Your task to perform on an android device: turn pop-ups on in chrome Image 0: 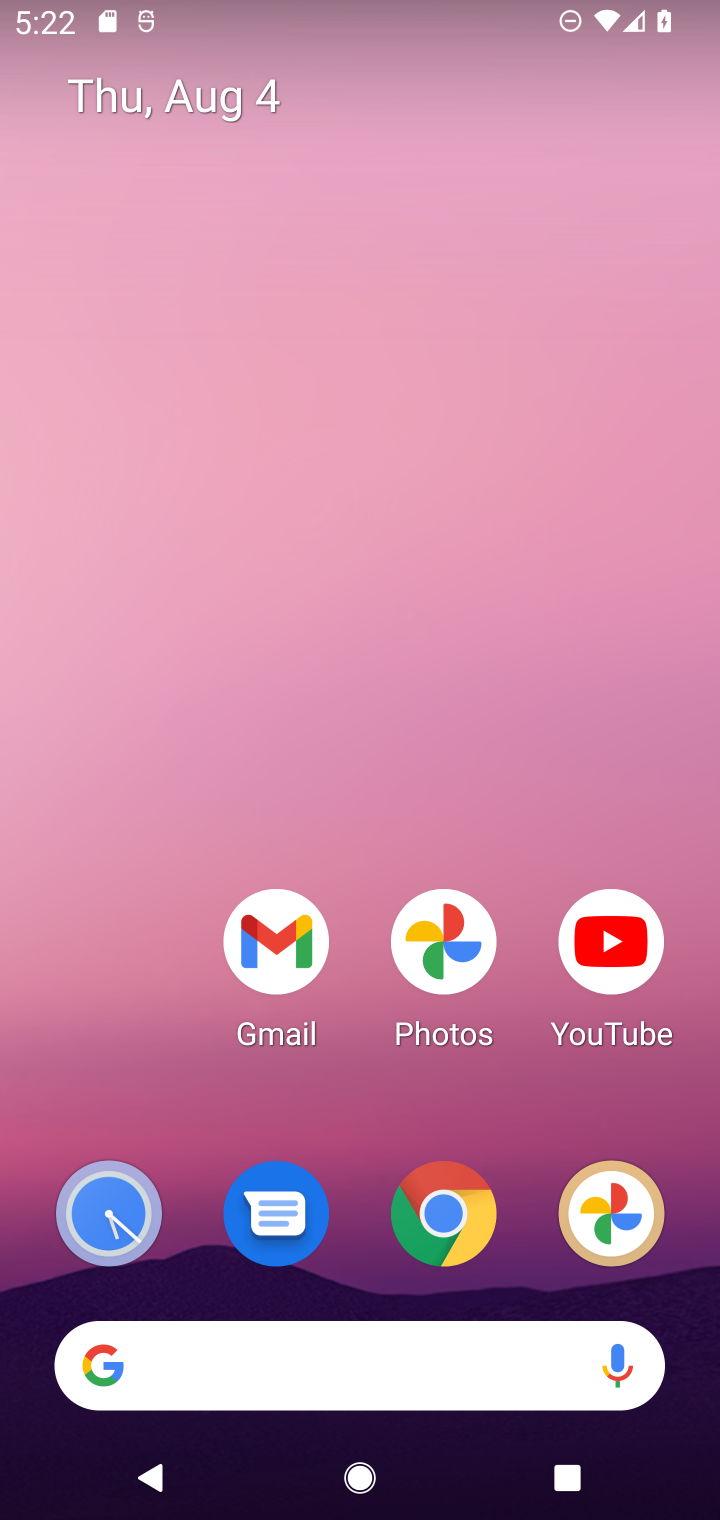
Step 0: press home button
Your task to perform on an android device: turn pop-ups on in chrome Image 1: 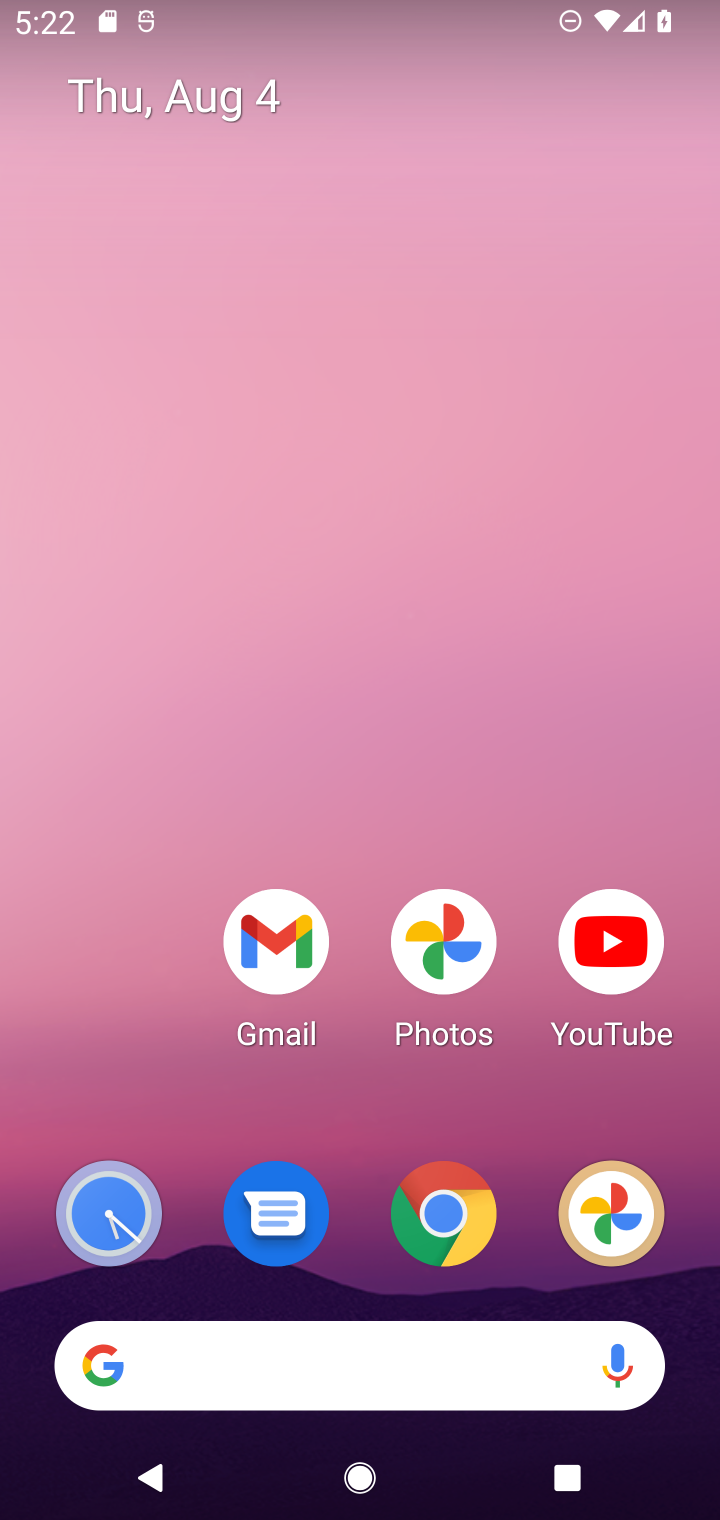
Step 1: drag from (153, 1130) to (161, 478)
Your task to perform on an android device: turn pop-ups on in chrome Image 2: 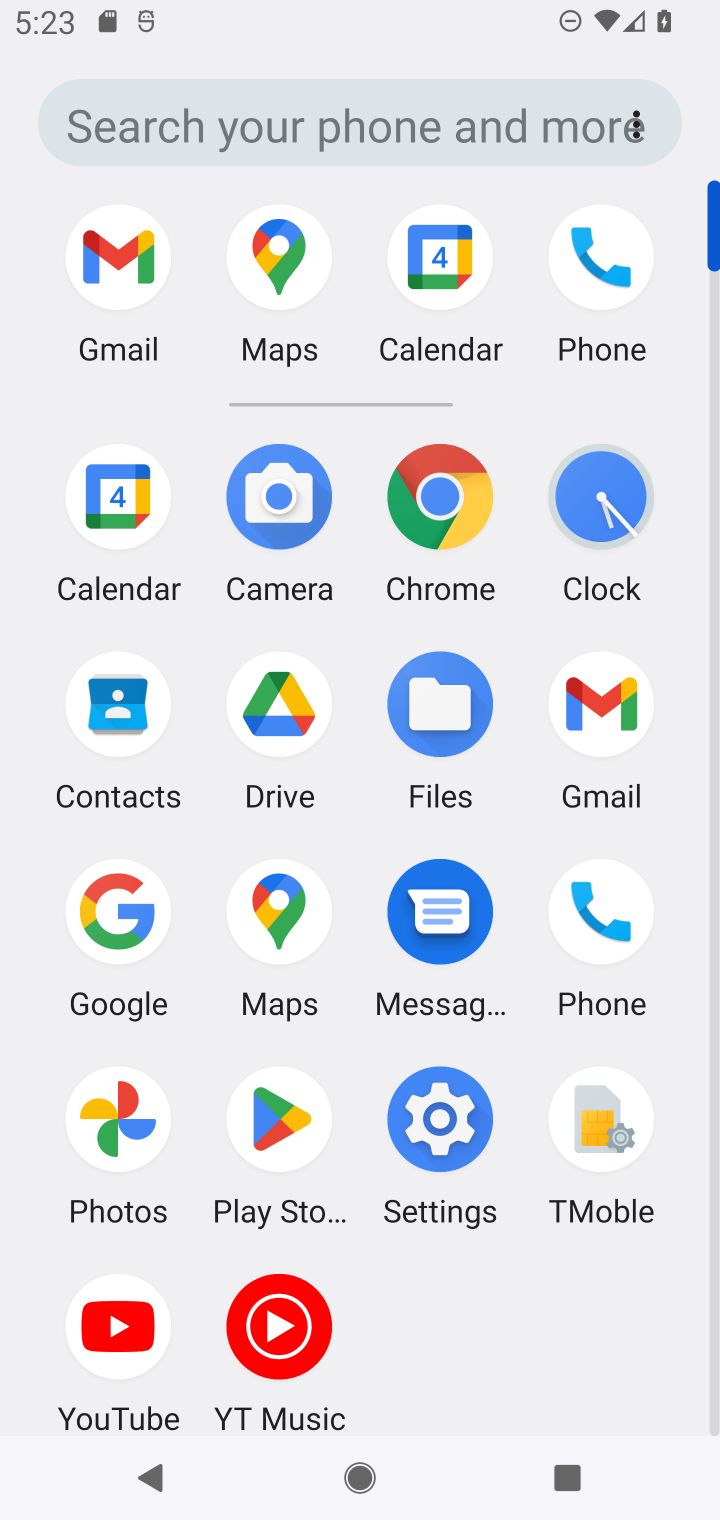
Step 2: click (446, 487)
Your task to perform on an android device: turn pop-ups on in chrome Image 3: 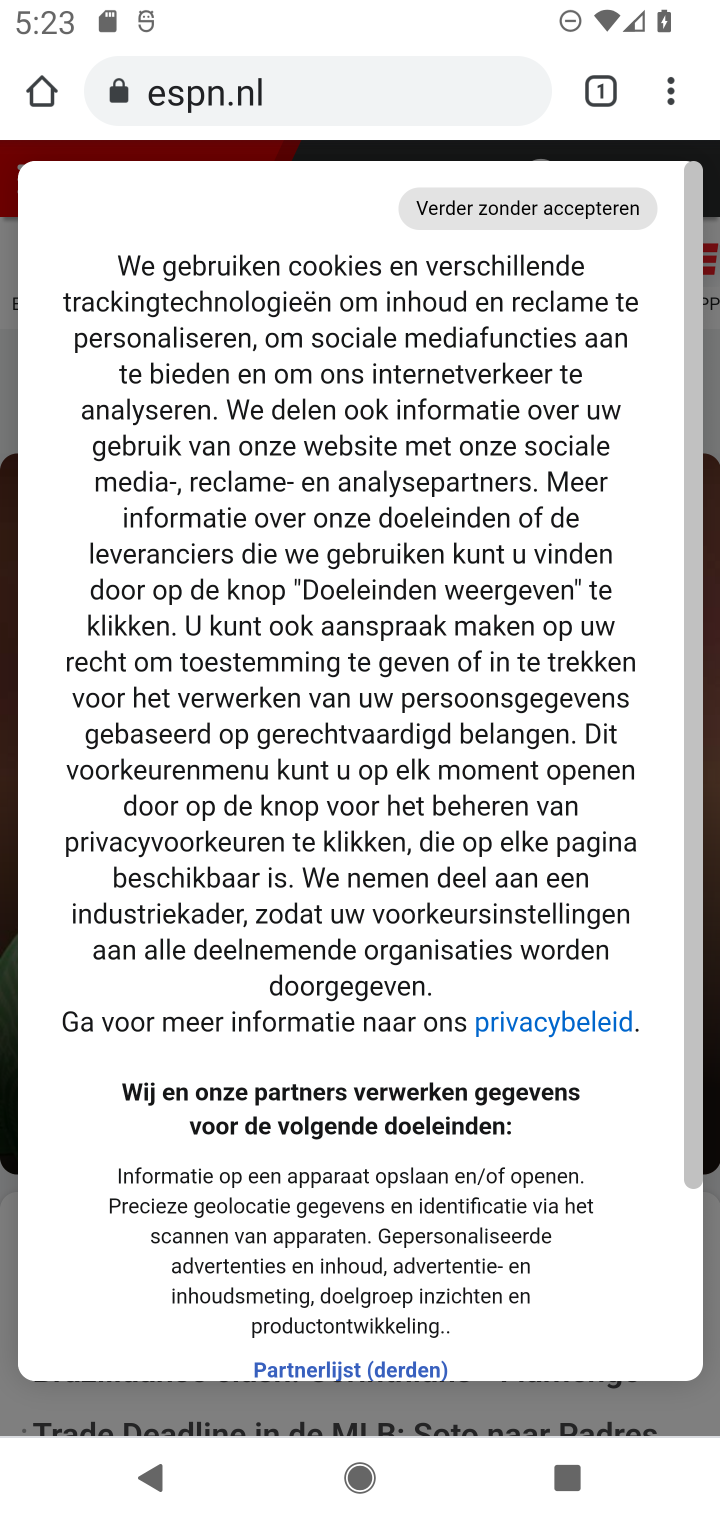
Step 3: click (666, 91)
Your task to perform on an android device: turn pop-ups on in chrome Image 4: 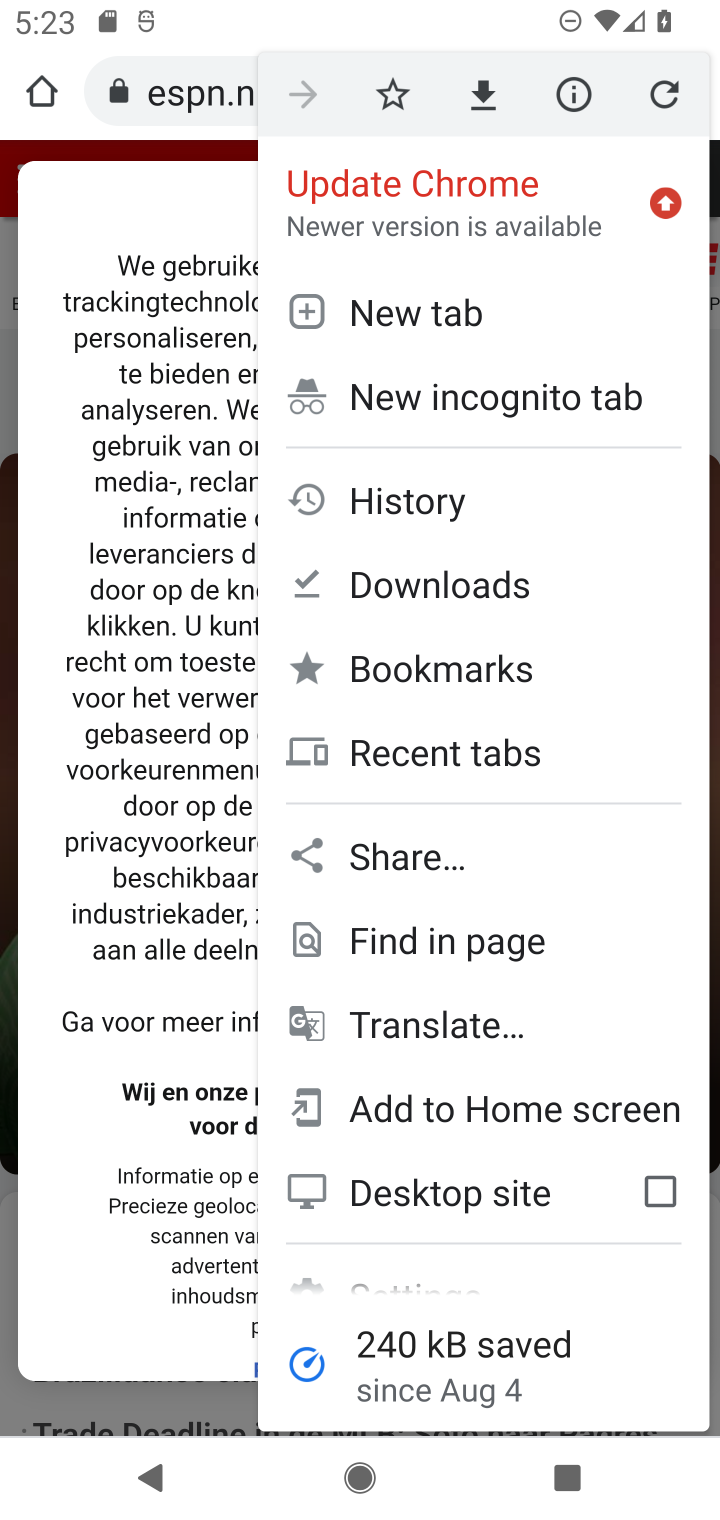
Step 4: drag from (585, 969) to (630, 667)
Your task to perform on an android device: turn pop-ups on in chrome Image 5: 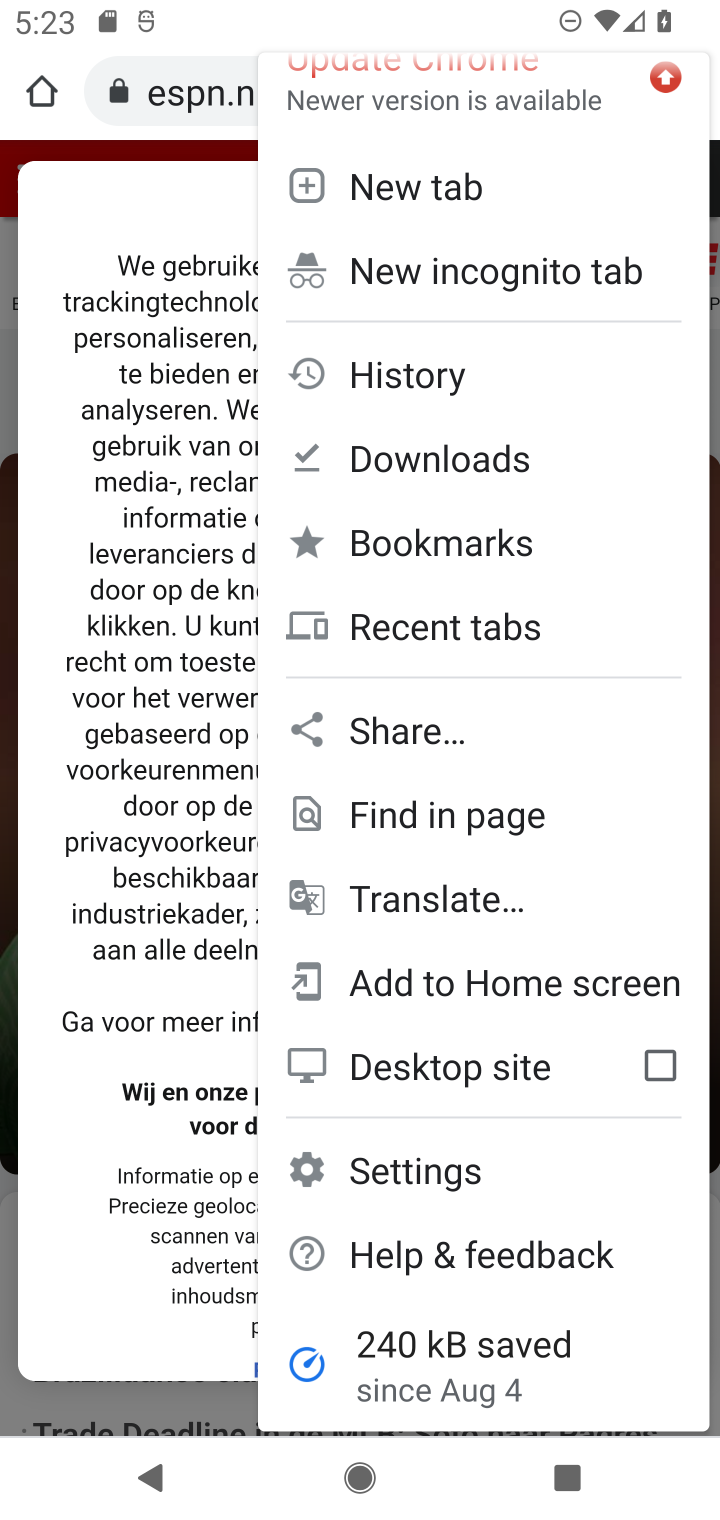
Step 5: click (453, 1169)
Your task to perform on an android device: turn pop-ups on in chrome Image 6: 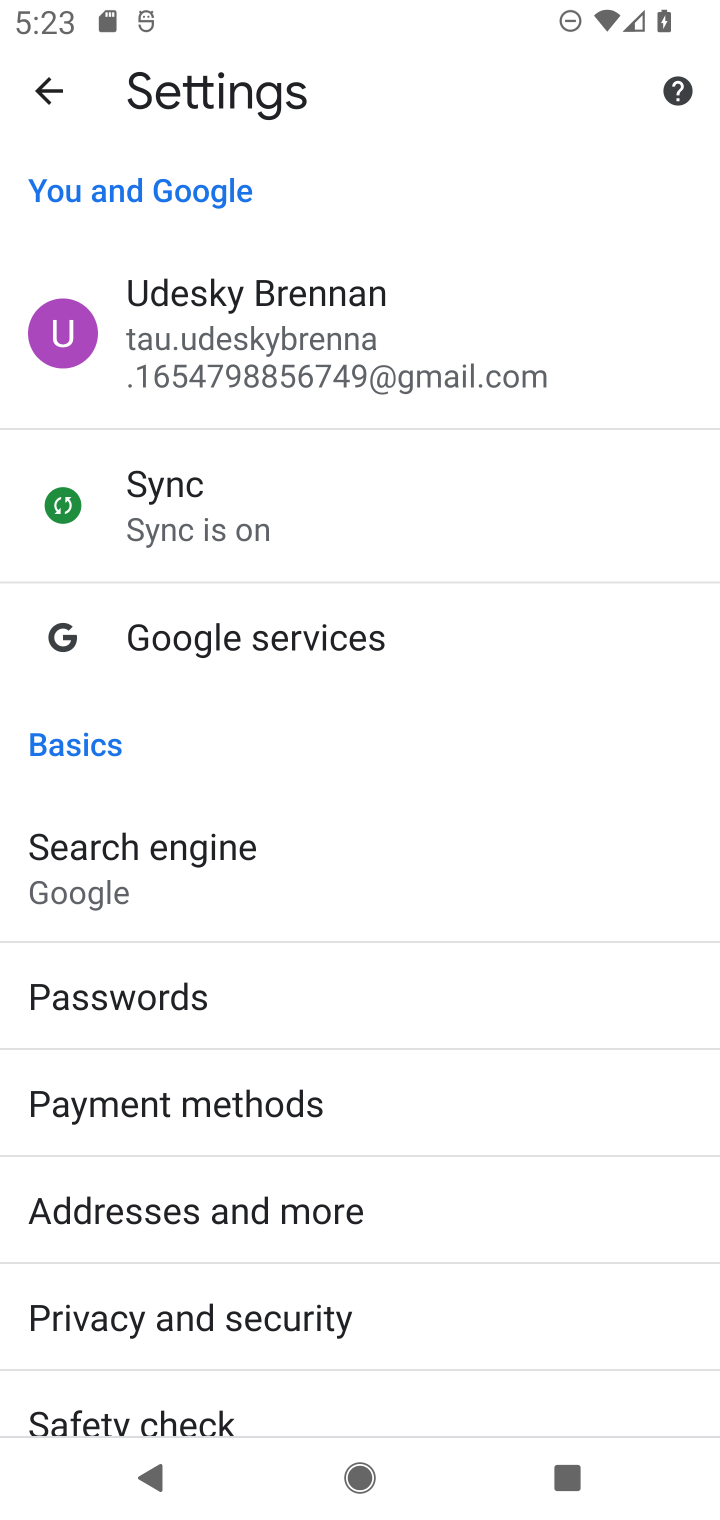
Step 6: drag from (489, 1241) to (473, 1001)
Your task to perform on an android device: turn pop-ups on in chrome Image 7: 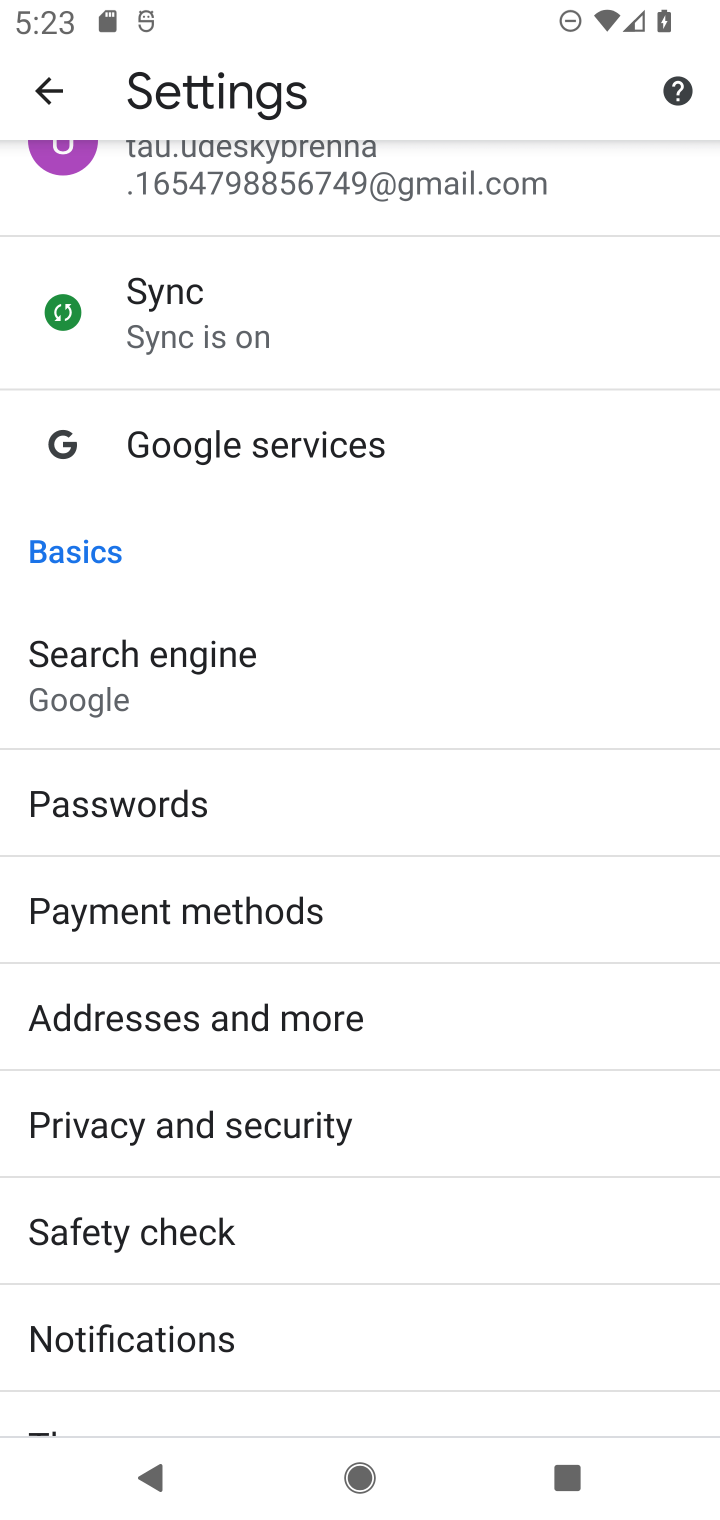
Step 7: drag from (490, 1306) to (515, 981)
Your task to perform on an android device: turn pop-ups on in chrome Image 8: 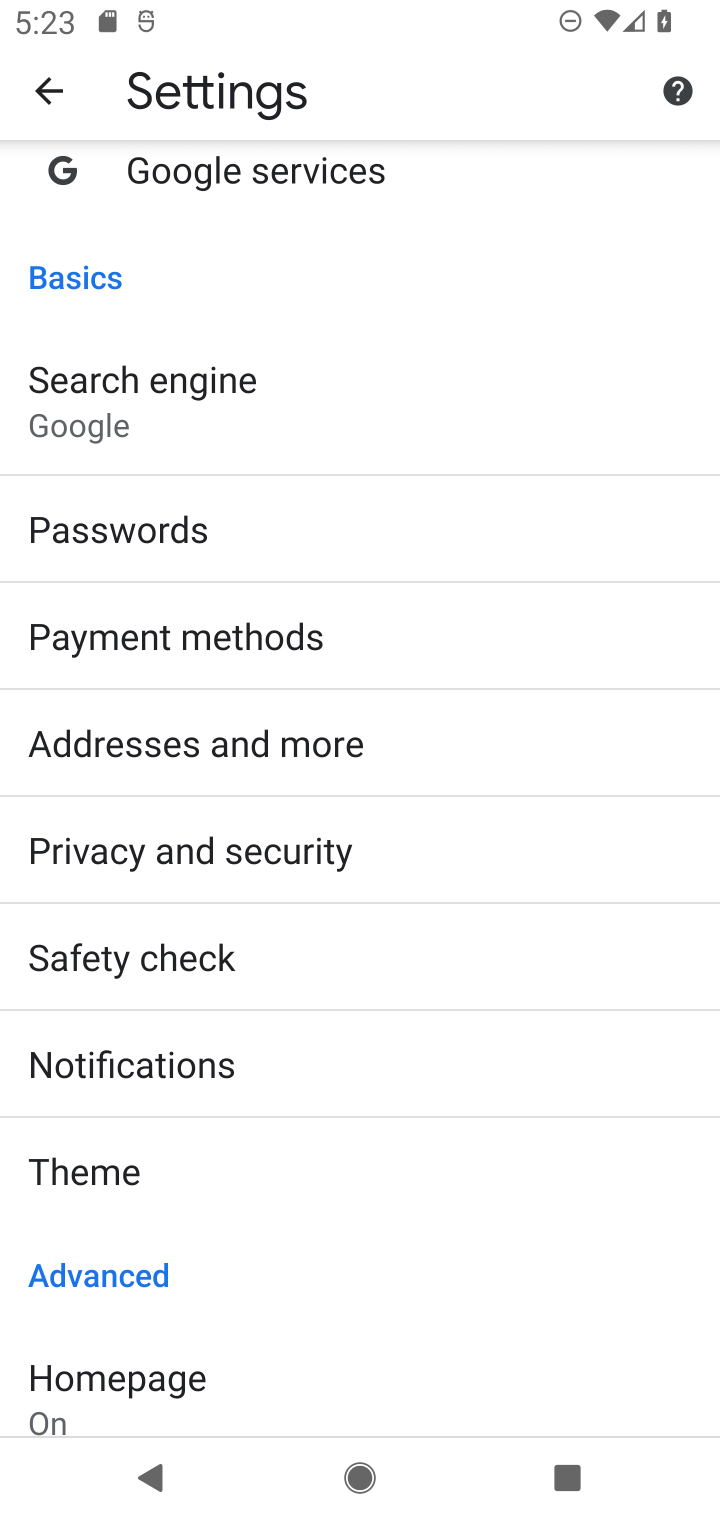
Step 8: drag from (498, 1225) to (491, 1010)
Your task to perform on an android device: turn pop-ups on in chrome Image 9: 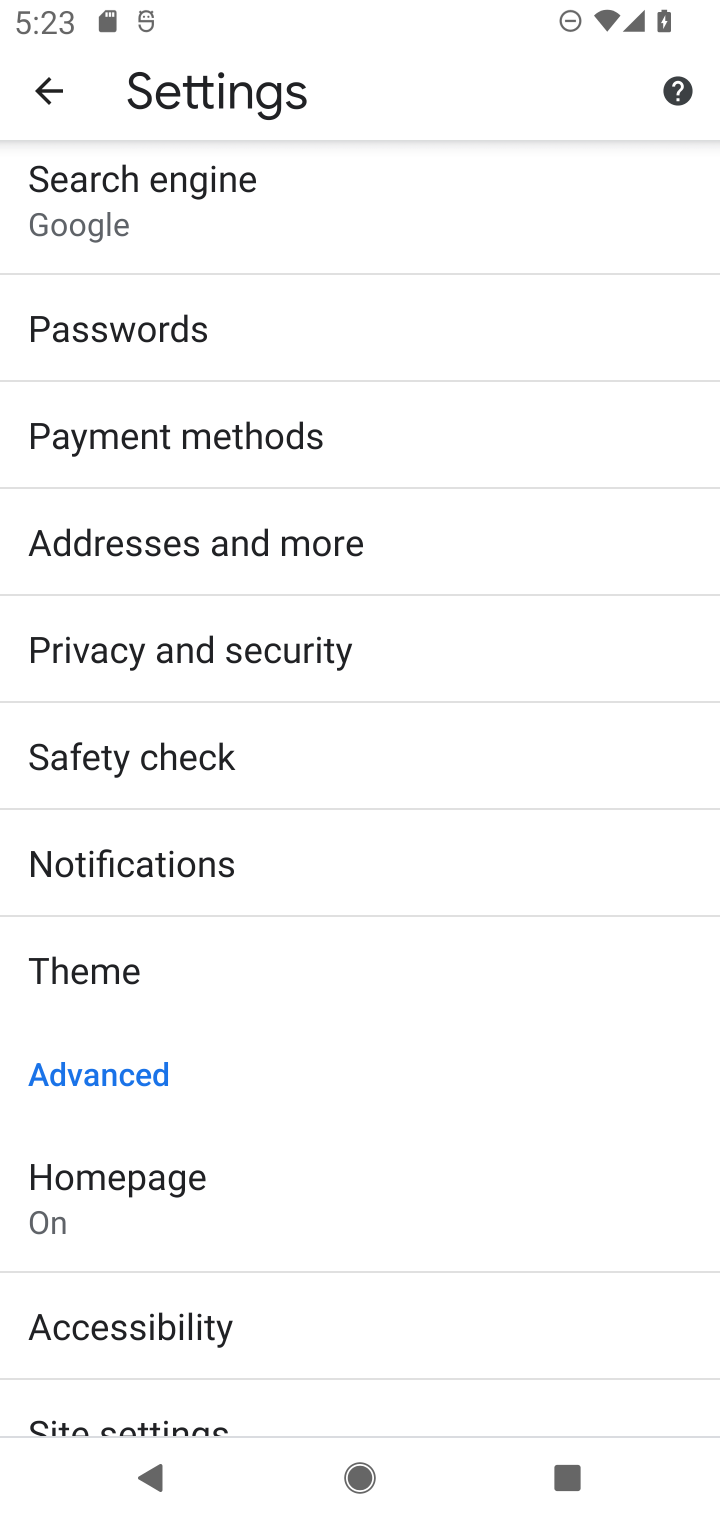
Step 9: drag from (523, 1227) to (523, 865)
Your task to perform on an android device: turn pop-ups on in chrome Image 10: 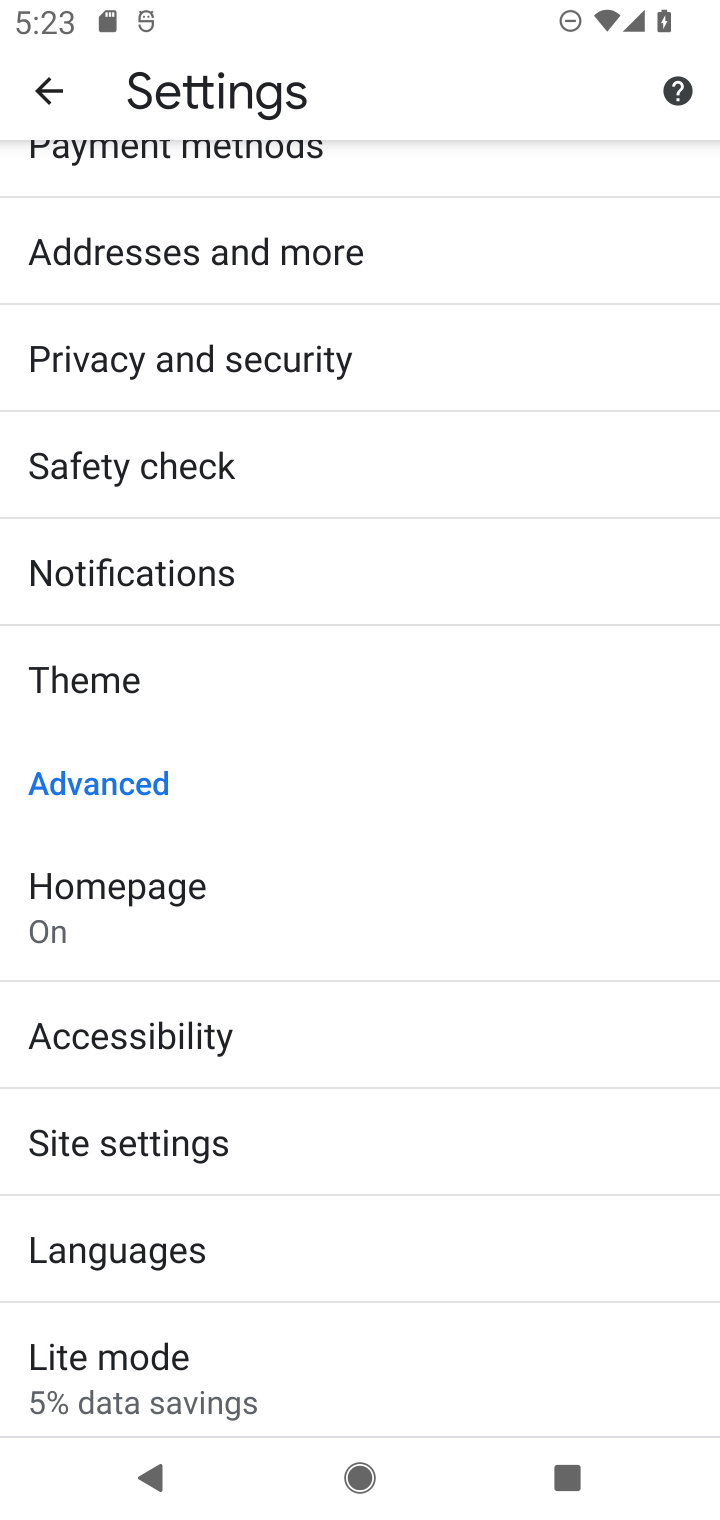
Step 10: click (525, 1133)
Your task to perform on an android device: turn pop-ups on in chrome Image 11: 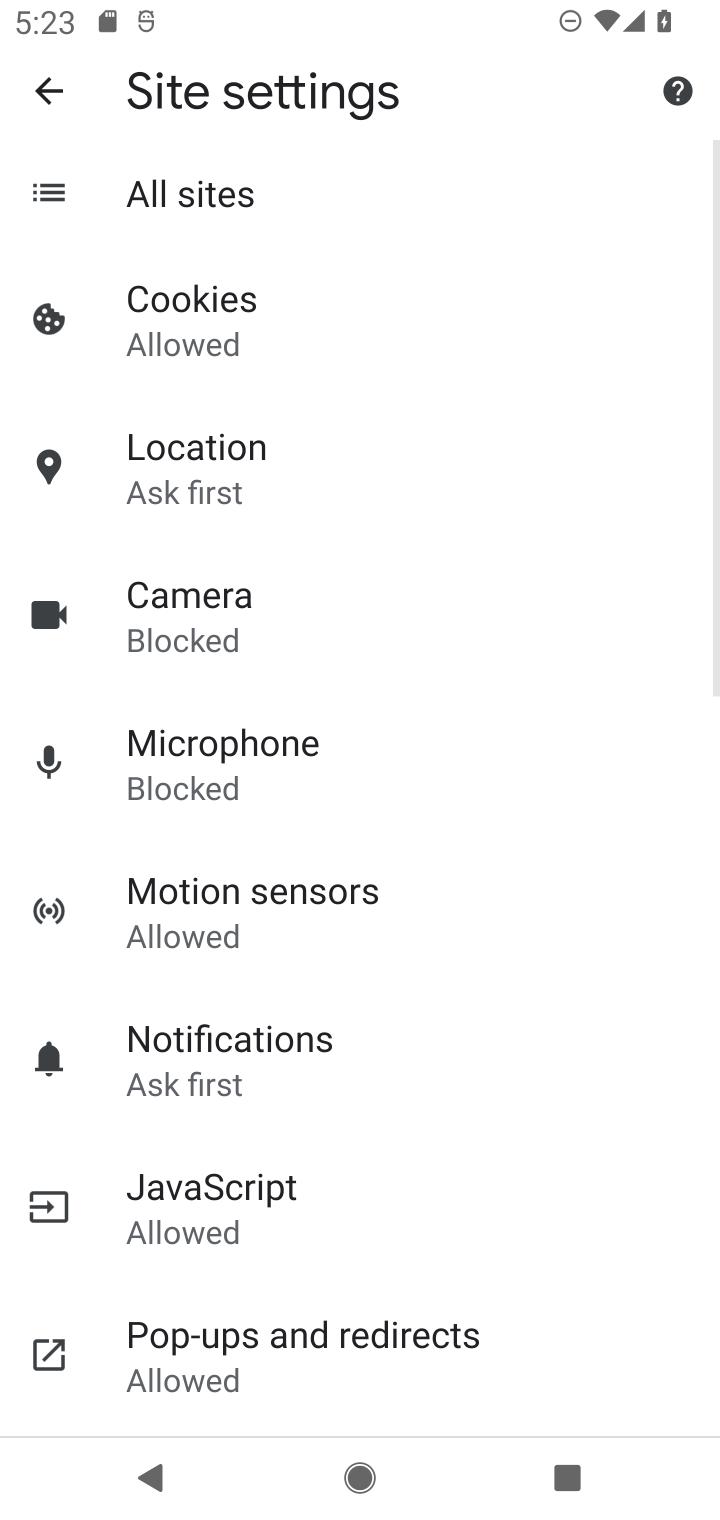
Step 11: drag from (523, 1140) to (525, 862)
Your task to perform on an android device: turn pop-ups on in chrome Image 12: 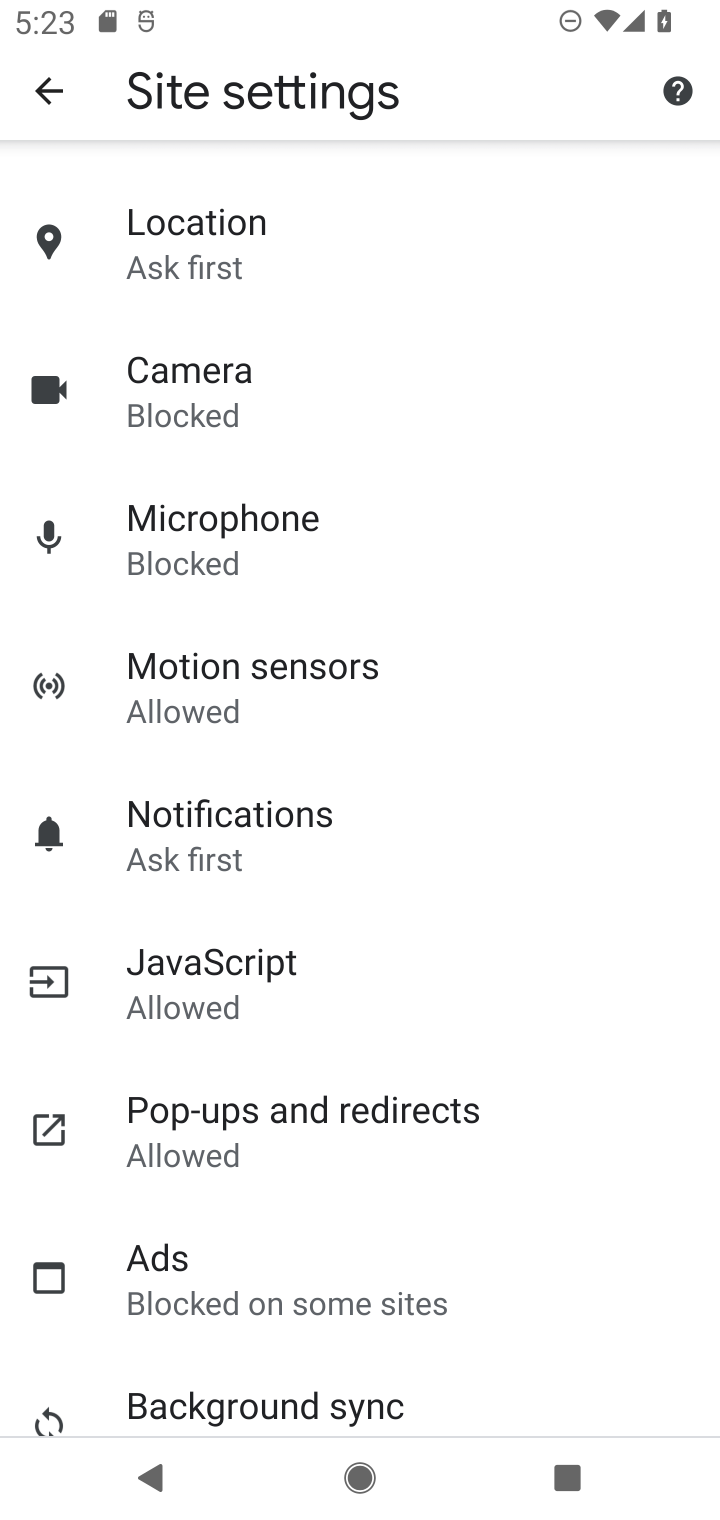
Step 12: drag from (551, 1222) to (549, 894)
Your task to perform on an android device: turn pop-ups on in chrome Image 13: 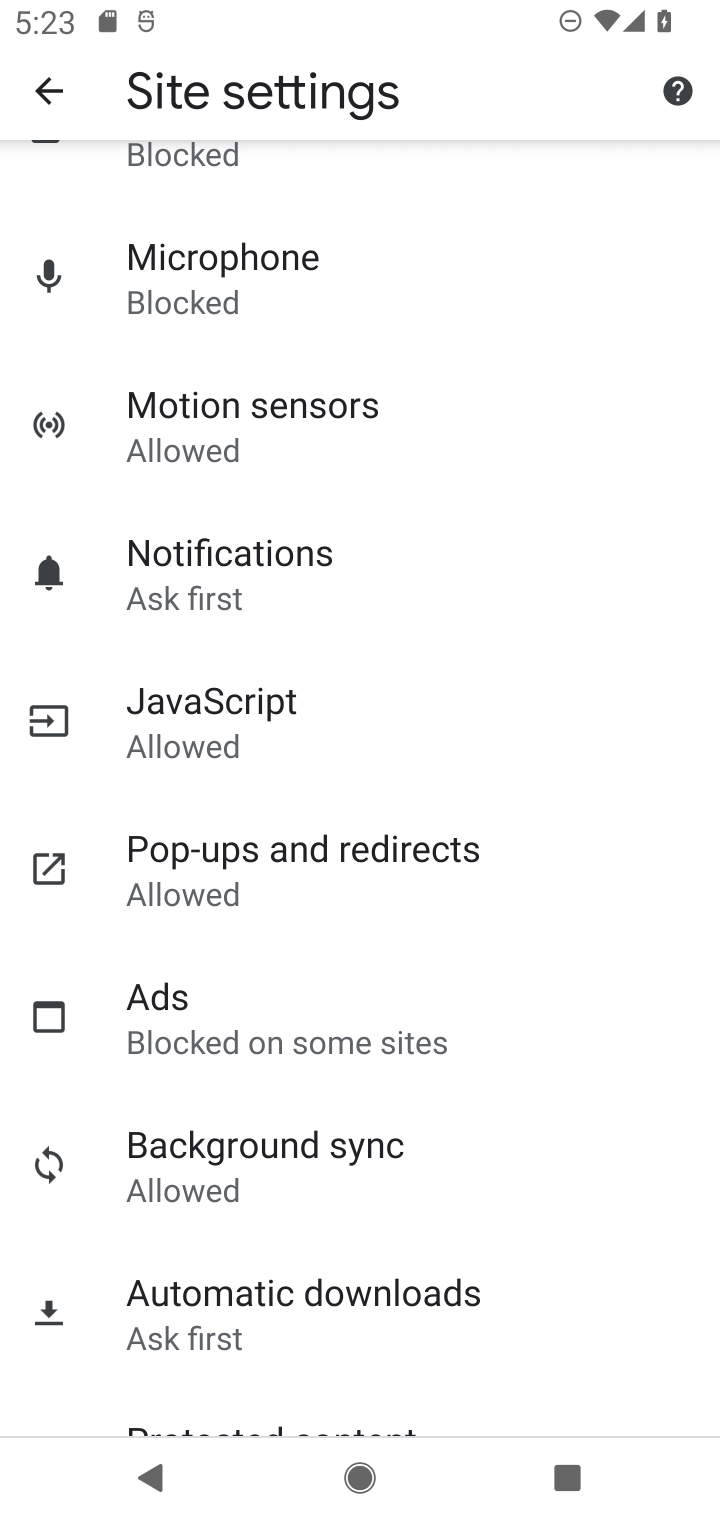
Step 13: click (455, 893)
Your task to perform on an android device: turn pop-ups on in chrome Image 14: 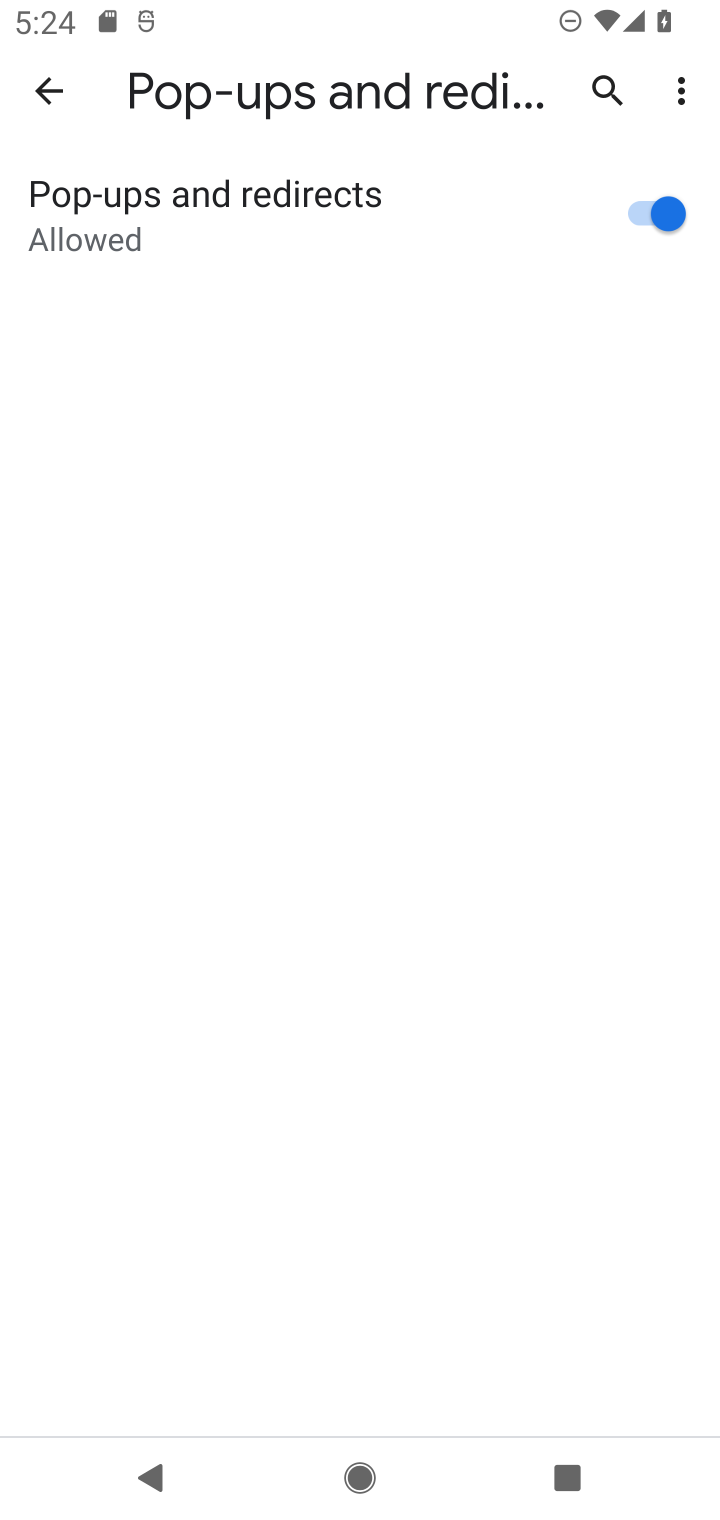
Step 14: task complete